Your task to perform on an android device: change alarm snooze length Image 0: 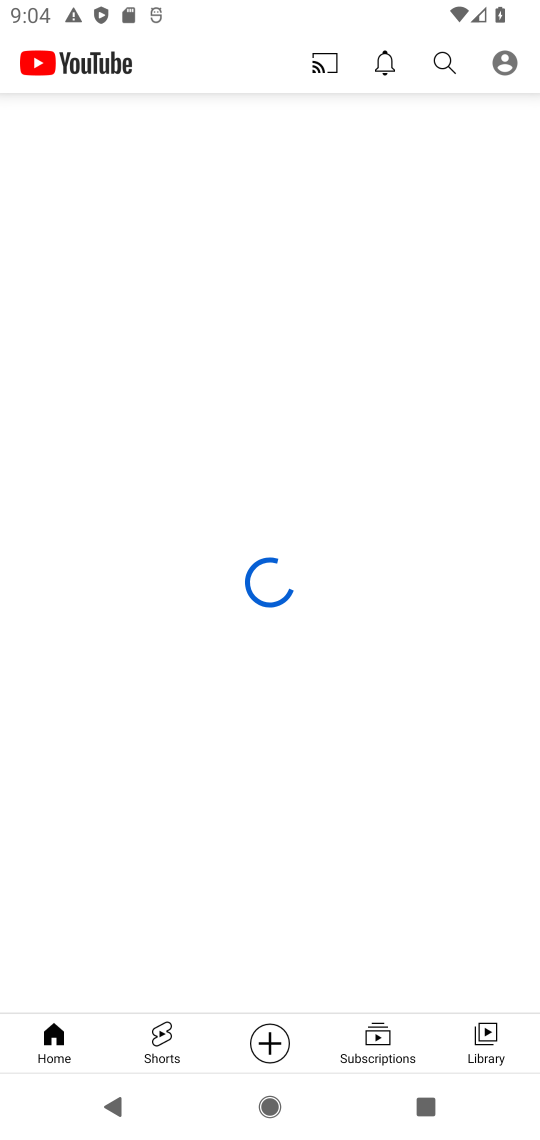
Step 0: press home button
Your task to perform on an android device: change alarm snooze length Image 1: 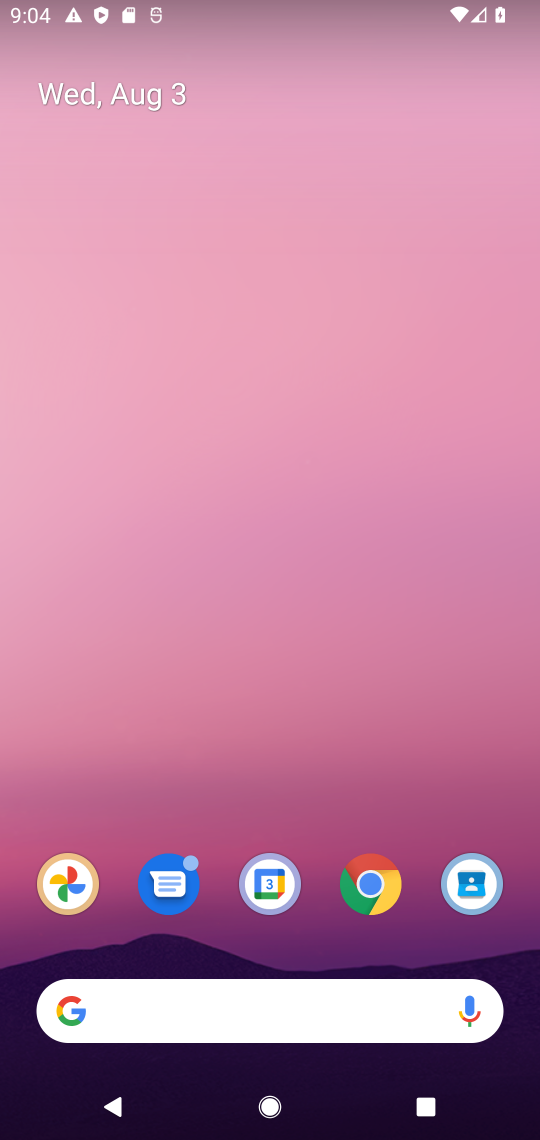
Step 1: drag from (311, 933) to (421, 30)
Your task to perform on an android device: change alarm snooze length Image 2: 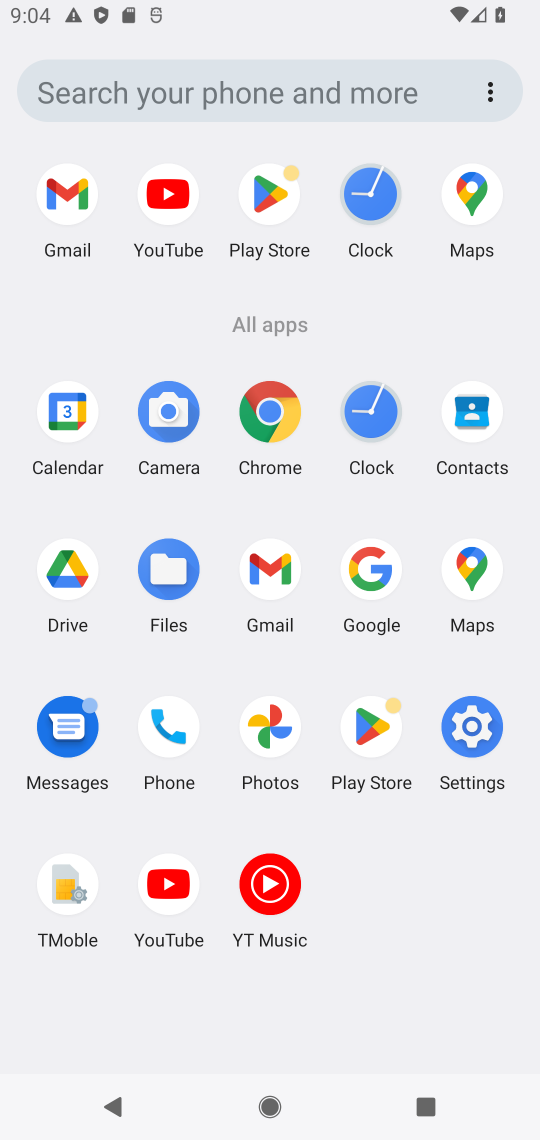
Step 2: click (386, 210)
Your task to perform on an android device: change alarm snooze length Image 3: 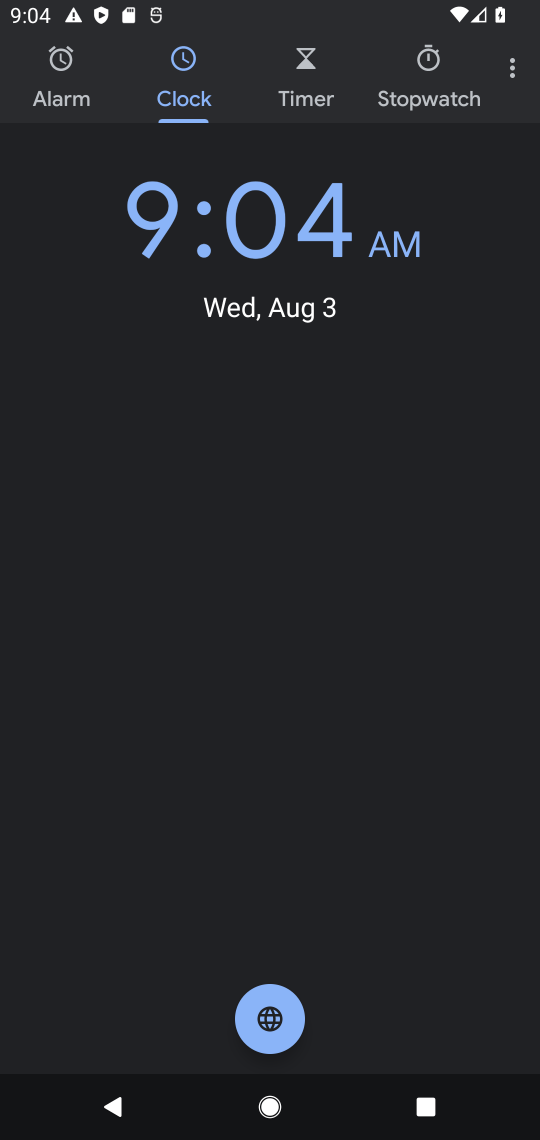
Step 3: click (513, 56)
Your task to perform on an android device: change alarm snooze length Image 4: 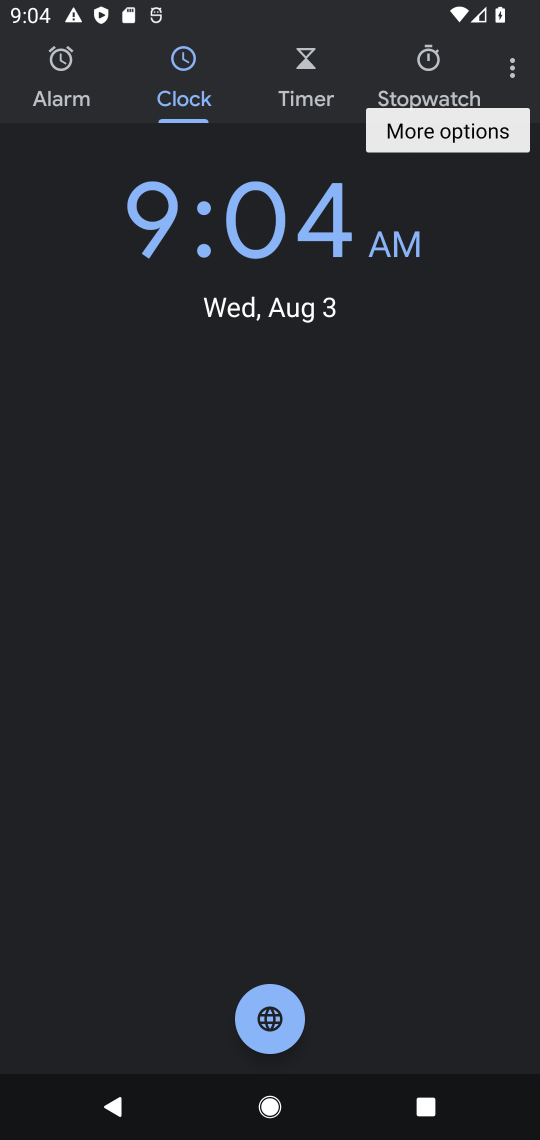
Step 4: click (513, 56)
Your task to perform on an android device: change alarm snooze length Image 5: 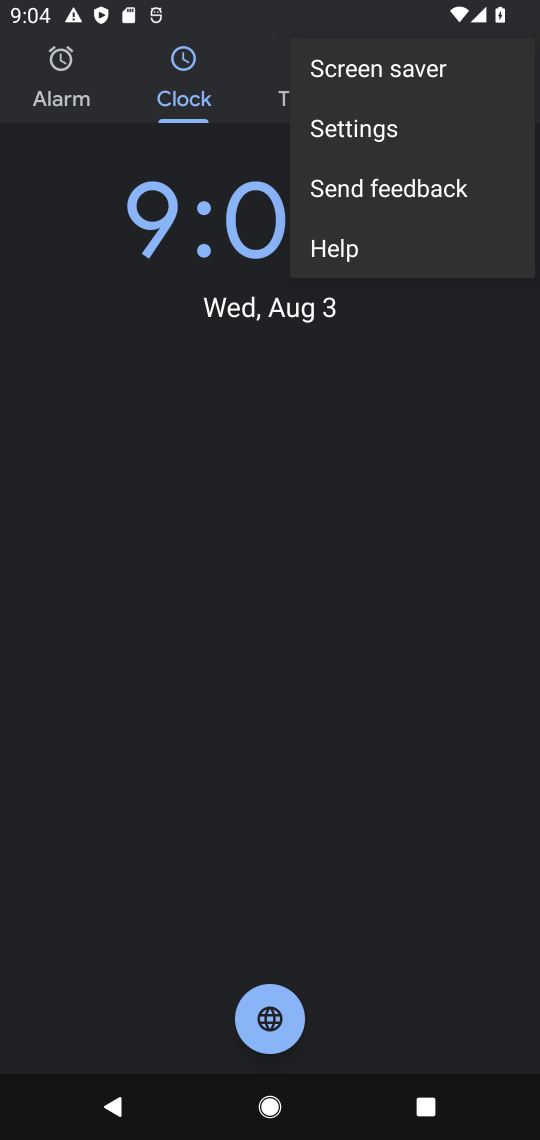
Step 5: click (173, 419)
Your task to perform on an android device: change alarm snooze length Image 6: 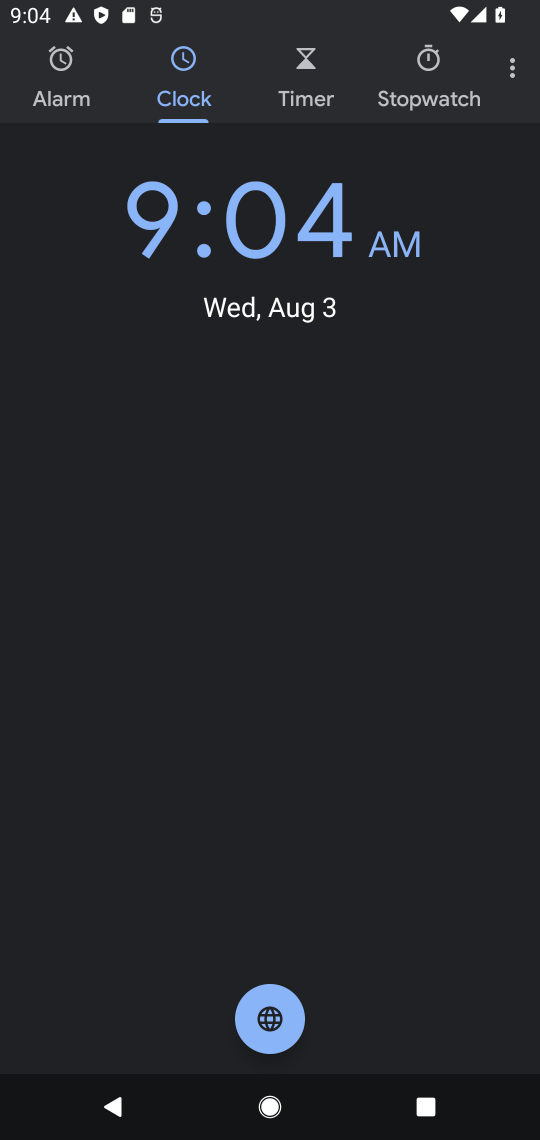
Step 6: click (53, 85)
Your task to perform on an android device: change alarm snooze length Image 7: 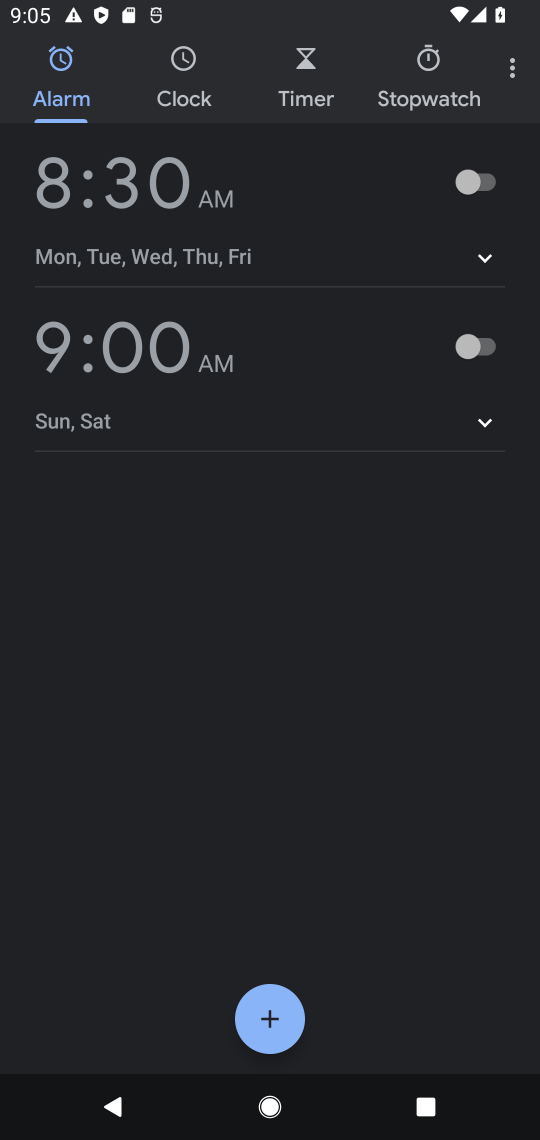
Step 7: click (492, 91)
Your task to perform on an android device: change alarm snooze length Image 8: 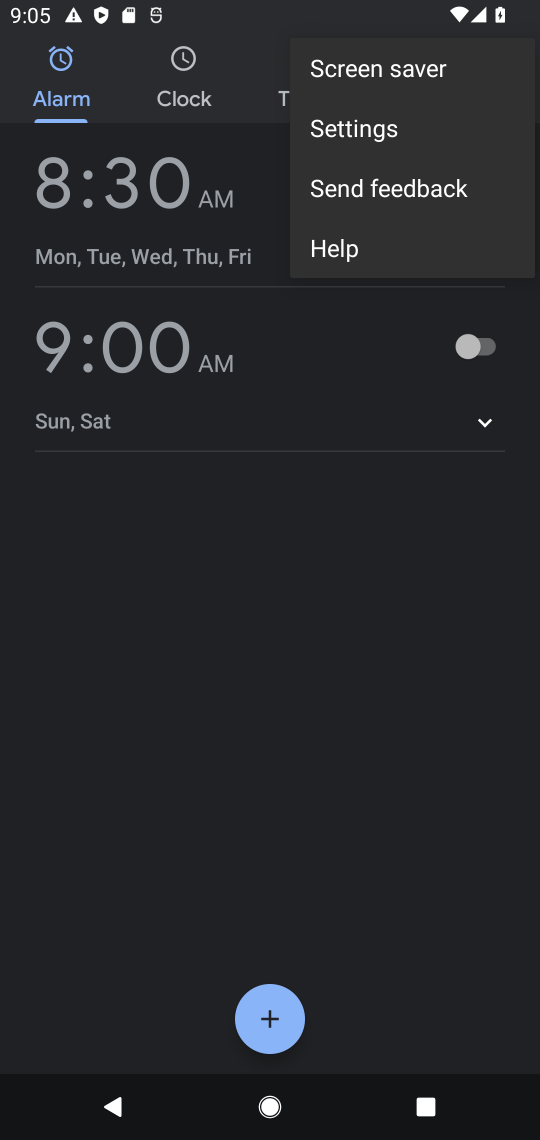
Step 8: click (368, 140)
Your task to perform on an android device: change alarm snooze length Image 9: 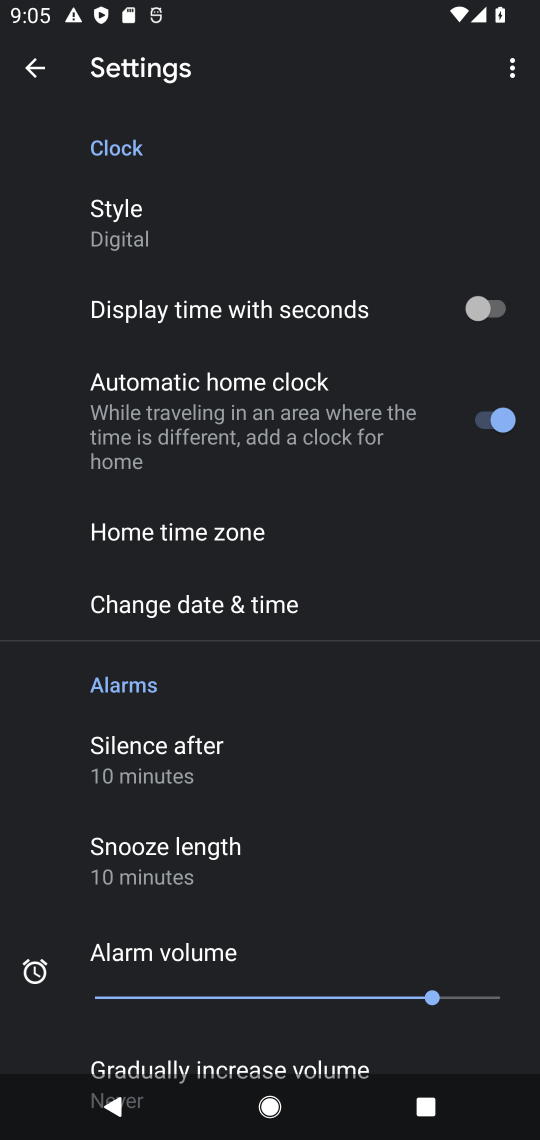
Step 9: click (96, 253)
Your task to perform on an android device: change alarm snooze length Image 10: 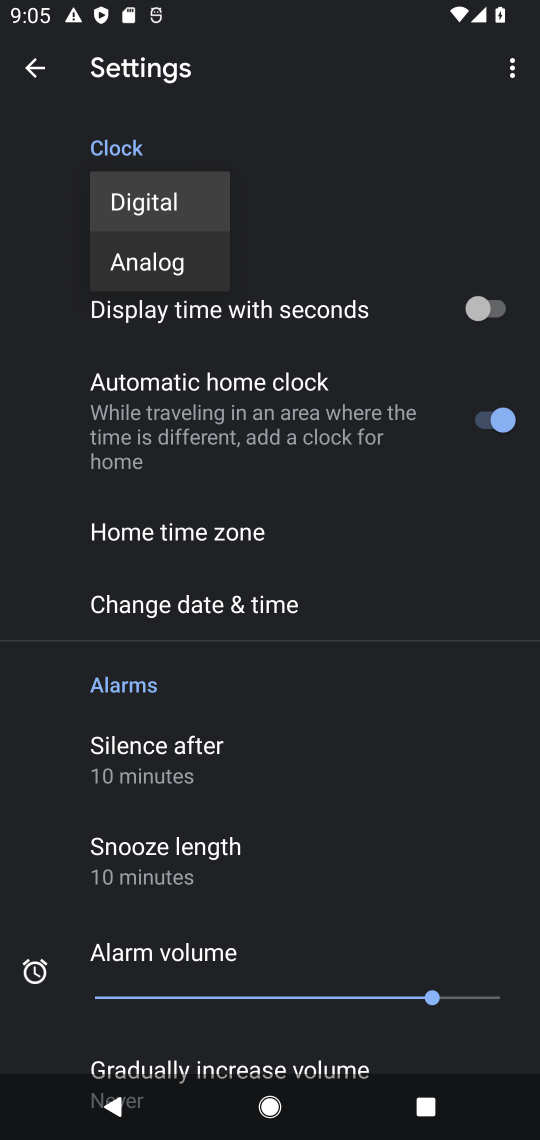
Step 10: click (9, 235)
Your task to perform on an android device: change alarm snooze length Image 11: 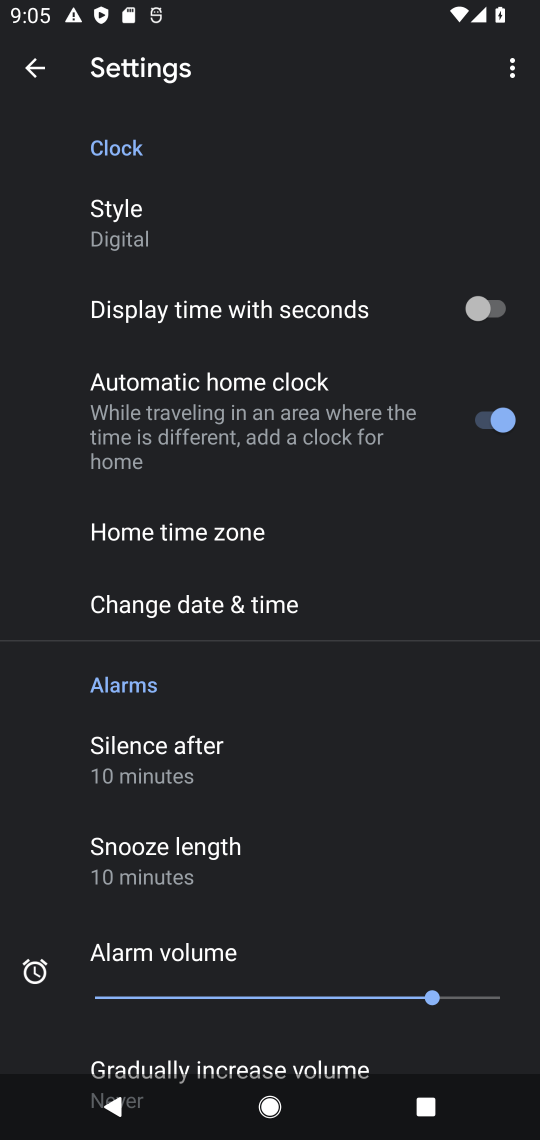
Step 11: click (98, 758)
Your task to perform on an android device: change alarm snooze length Image 12: 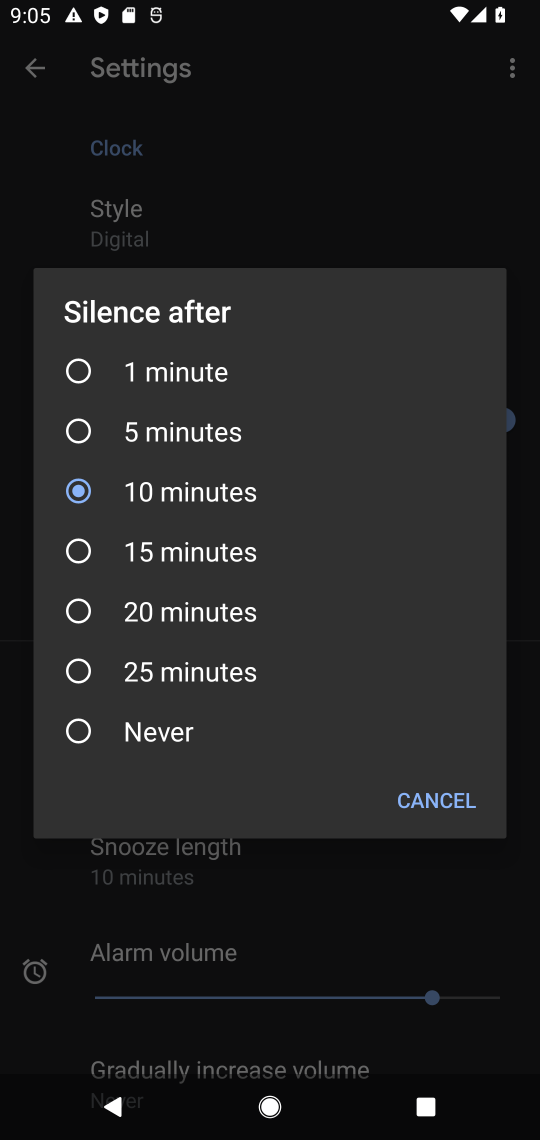
Step 12: click (147, 591)
Your task to perform on an android device: change alarm snooze length Image 13: 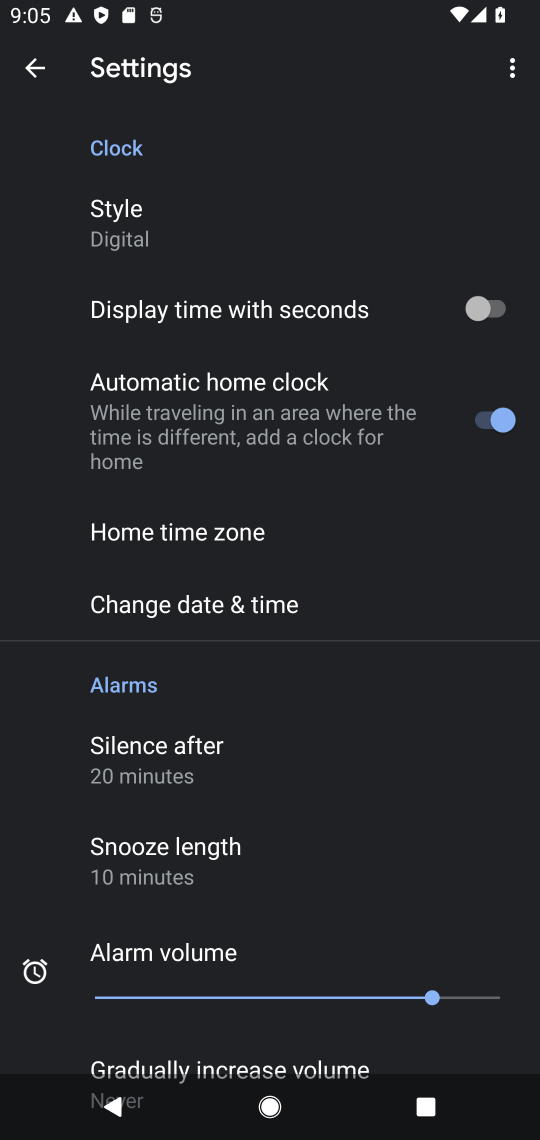
Step 13: task complete